Your task to perform on an android device: check android version Image 0: 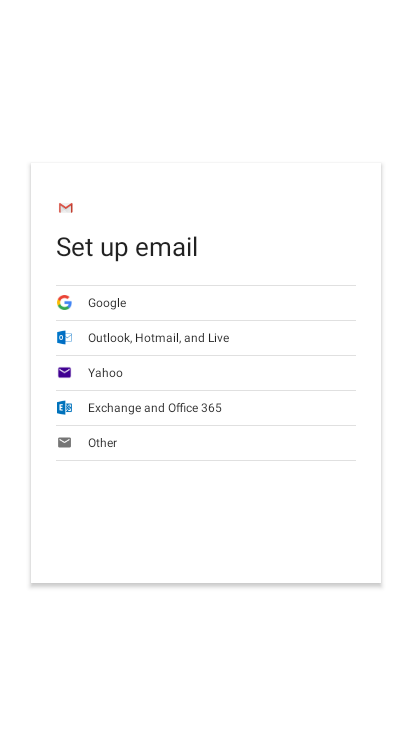
Step 0: press back button
Your task to perform on an android device: check android version Image 1: 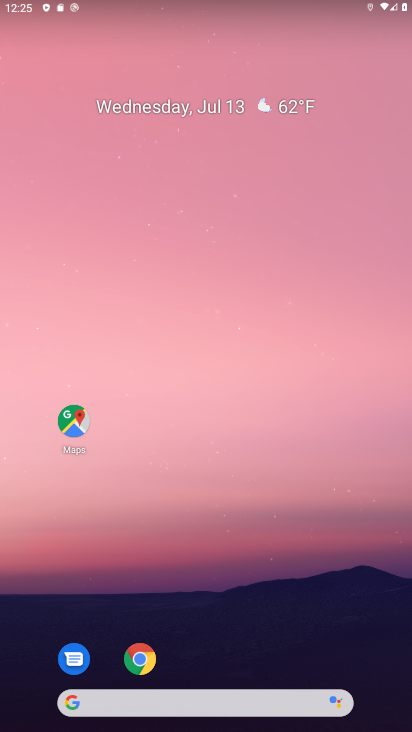
Step 1: drag from (258, 675) to (186, 158)
Your task to perform on an android device: check android version Image 2: 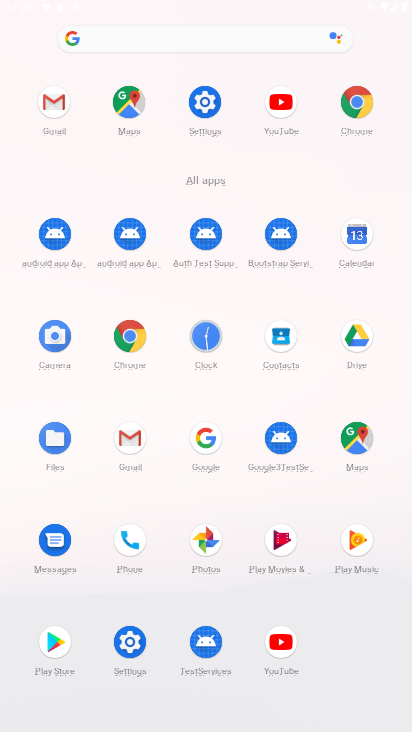
Step 2: drag from (218, 648) to (140, 186)
Your task to perform on an android device: check android version Image 3: 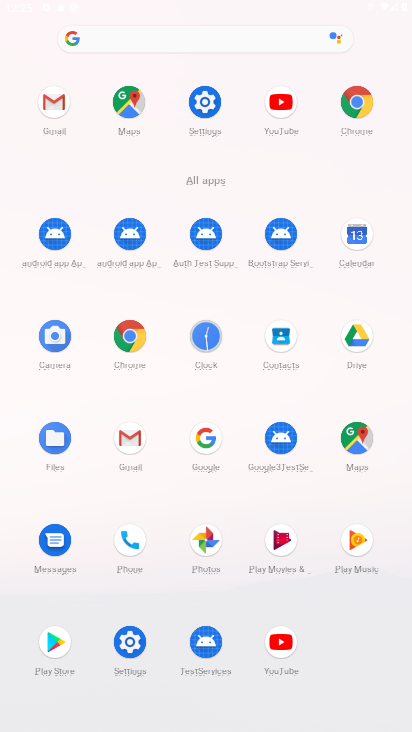
Step 3: click (201, 110)
Your task to perform on an android device: check android version Image 4: 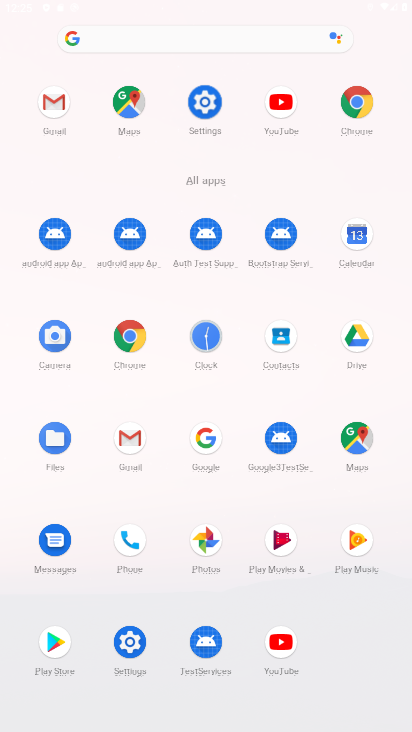
Step 4: click (203, 101)
Your task to perform on an android device: check android version Image 5: 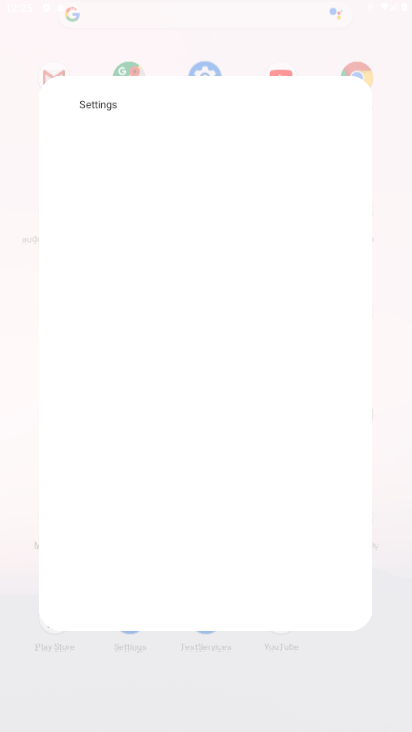
Step 5: click (203, 101)
Your task to perform on an android device: check android version Image 6: 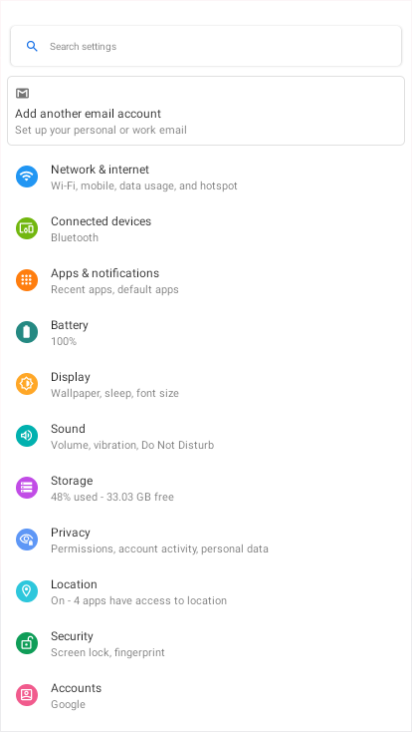
Step 6: click (206, 100)
Your task to perform on an android device: check android version Image 7: 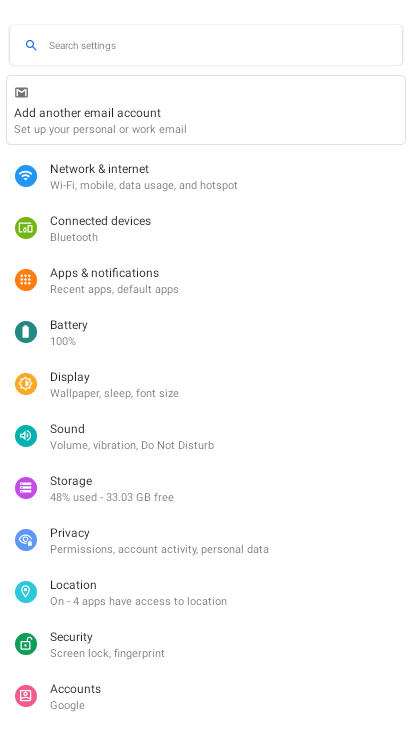
Step 7: drag from (145, 590) to (188, 356)
Your task to perform on an android device: check android version Image 8: 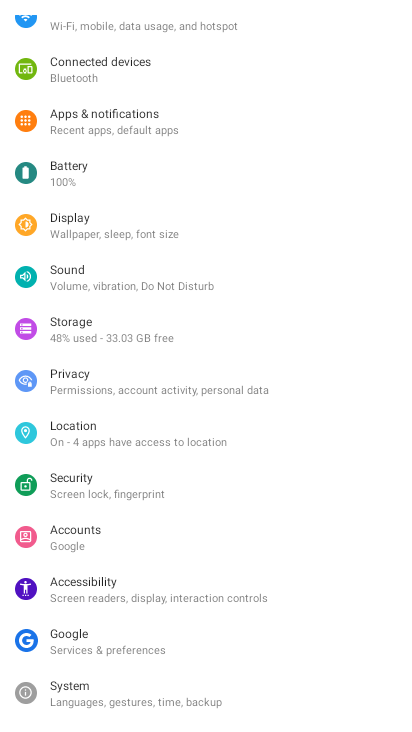
Step 8: drag from (188, 557) to (148, 295)
Your task to perform on an android device: check android version Image 9: 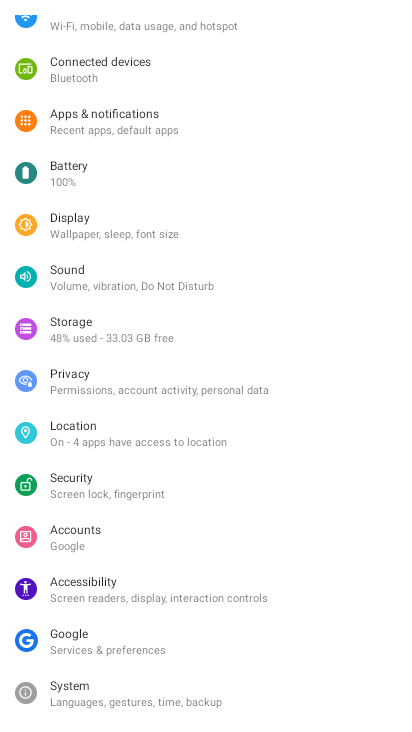
Step 9: click (67, 698)
Your task to perform on an android device: check android version Image 10: 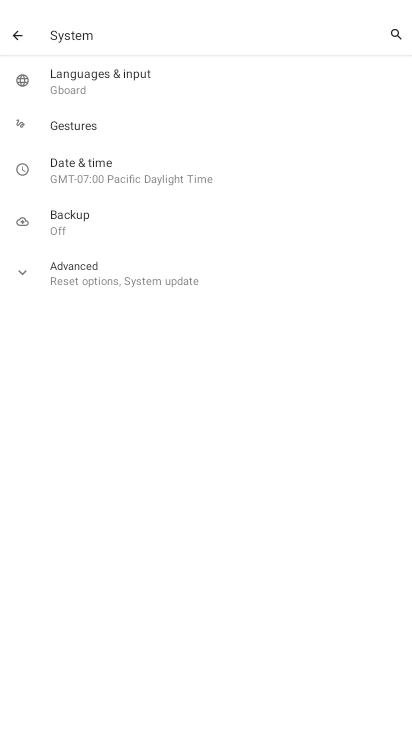
Step 10: click (13, 40)
Your task to perform on an android device: check android version Image 11: 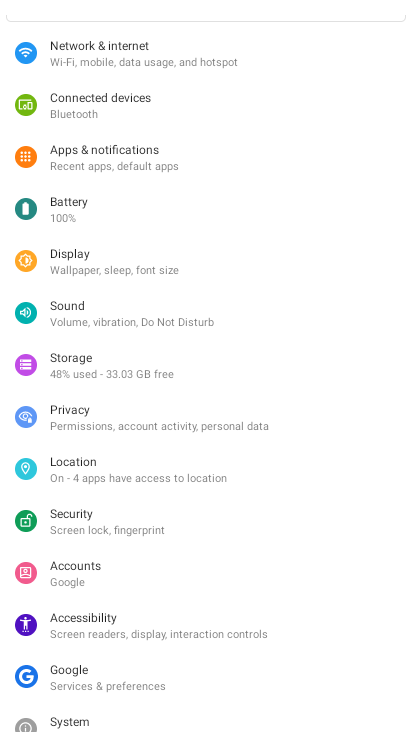
Step 11: drag from (127, 692) to (125, 318)
Your task to perform on an android device: check android version Image 12: 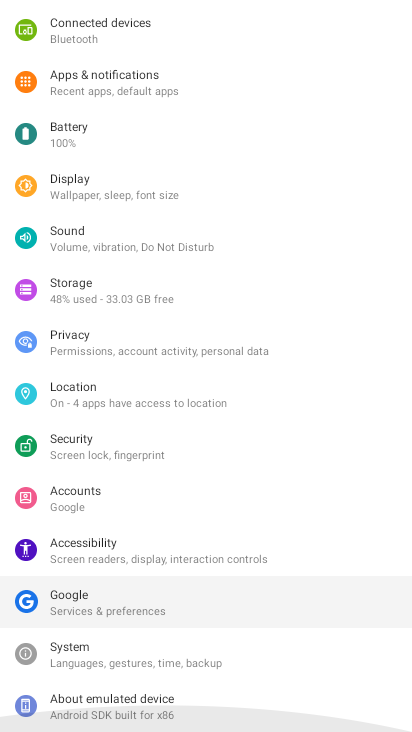
Step 12: drag from (152, 470) to (152, 212)
Your task to perform on an android device: check android version Image 13: 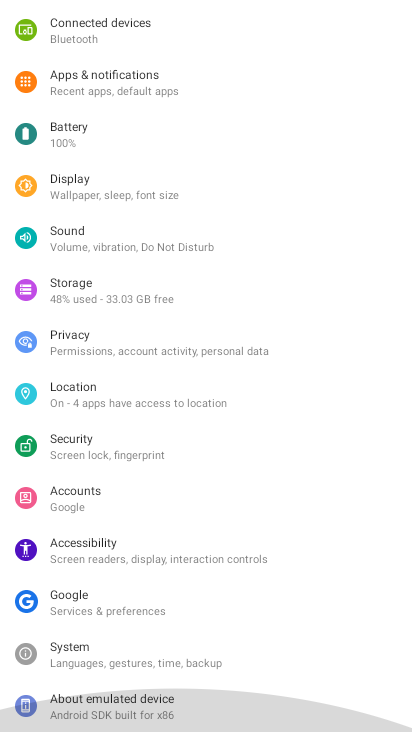
Step 13: drag from (152, 508) to (152, 259)
Your task to perform on an android device: check android version Image 14: 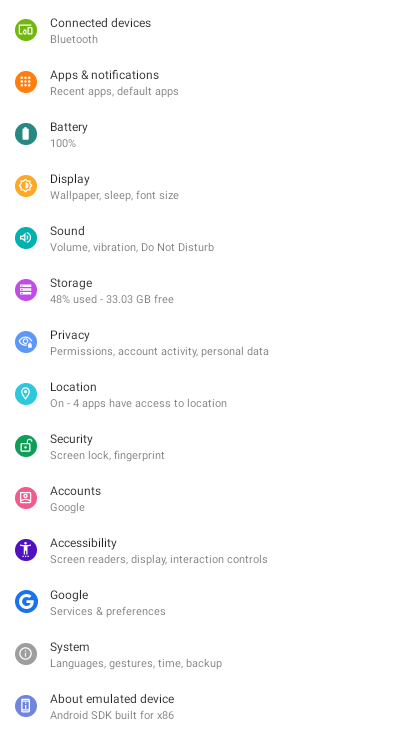
Step 14: click (98, 710)
Your task to perform on an android device: check android version Image 15: 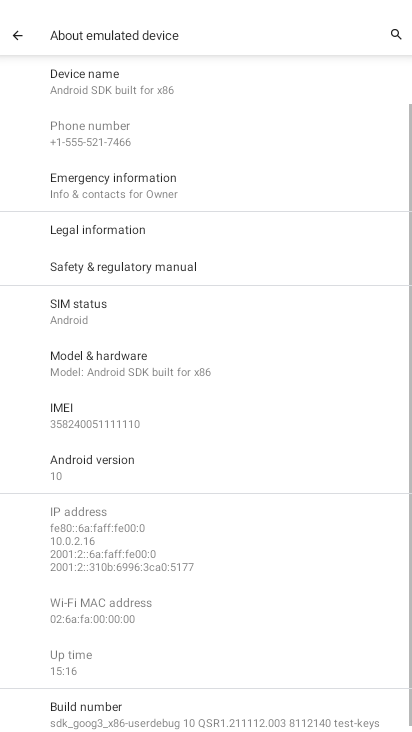
Step 15: task complete